Your task to perform on an android device: Show me popular videos on Youtube Image 0: 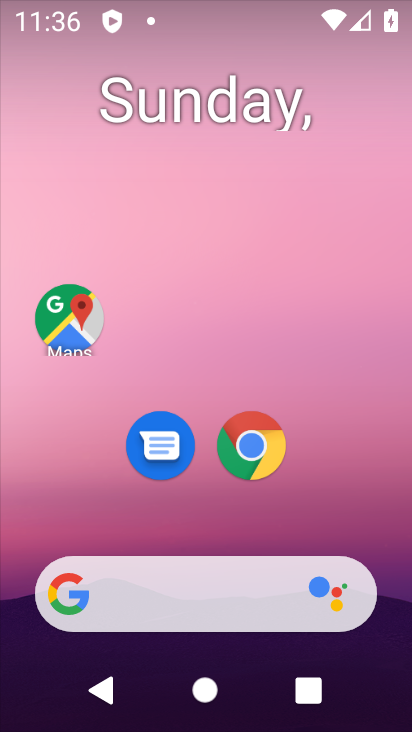
Step 0: drag from (338, 509) to (332, 59)
Your task to perform on an android device: Show me popular videos on Youtube Image 1: 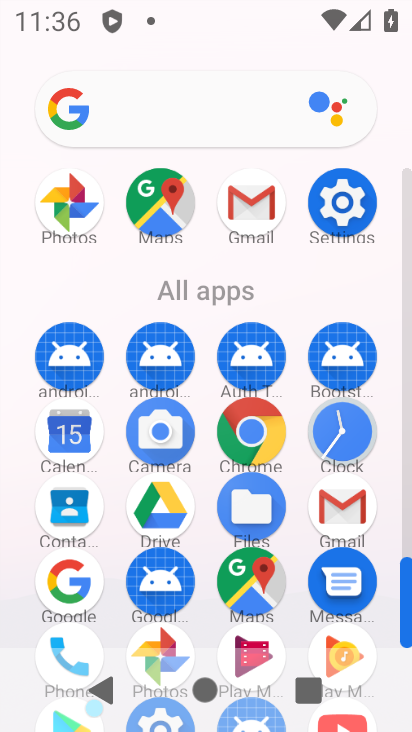
Step 1: drag from (292, 617) to (312, 254)
Your task to perform on an android device: Show me popular videos on Youtube Image 2: 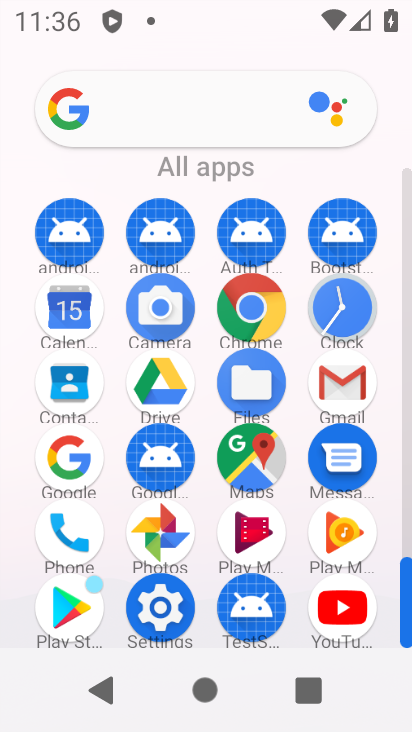
Step 2: click (351, 610)
Your task to perform on an android device: Show me popular videos on Youtube Image 3: 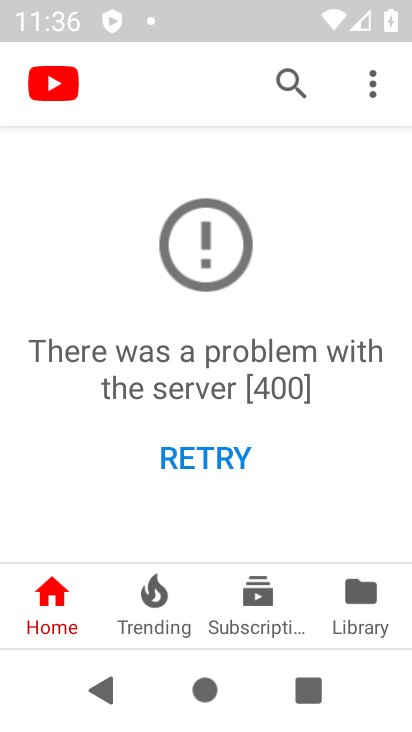
Step 3: click (287, 77)
Your task to perform on an android device: Show me popular videos on Youtube Image 4: 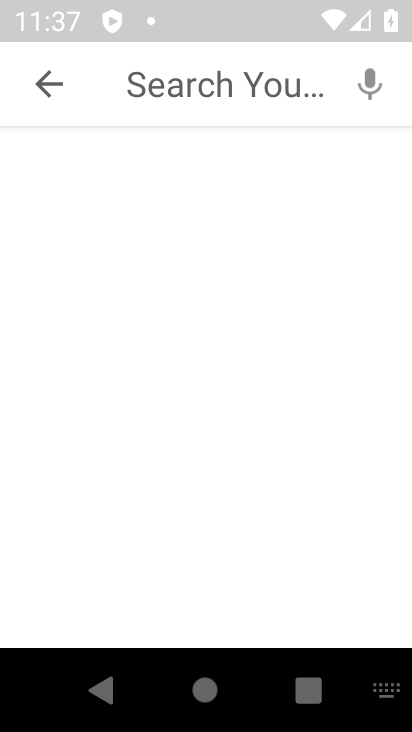
Step 4: type "popular videos"
Your task to perform on an android device: Show me popular videos on Youtube Image 5: 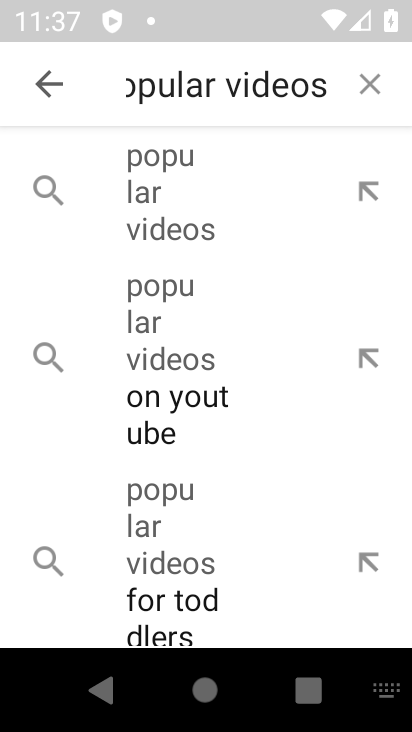
Step 5: click (180, 386)
Your task to perform on an android device: Show me popular videos on Youtube Image 6: 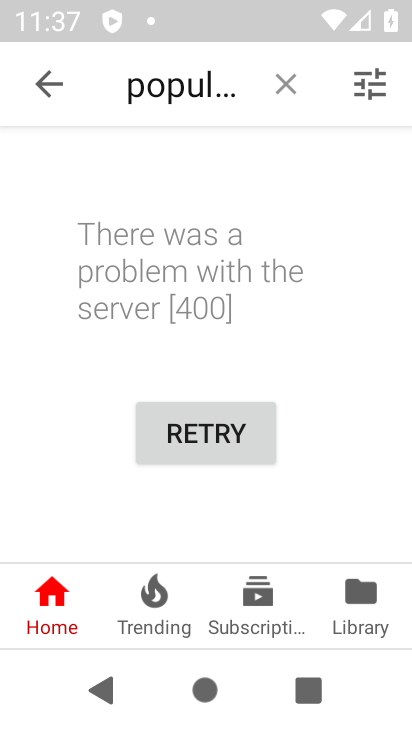
Step 6: task complete